Your task to perform on an android device: Open Android settings Image 0: 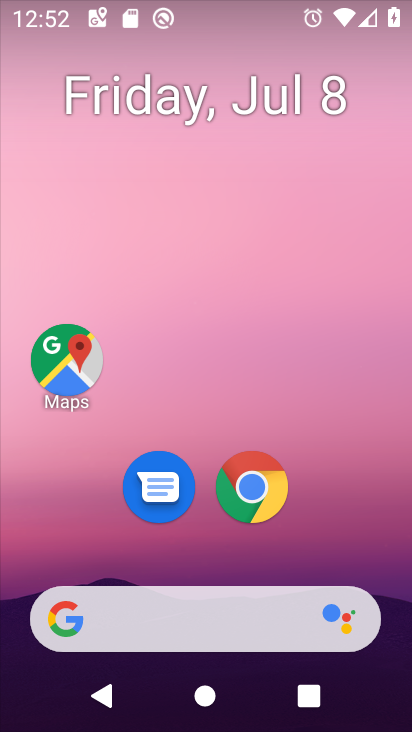
Step 0: click (372, 51)
Your task to perform on an android device: Open Android settings Image 1: 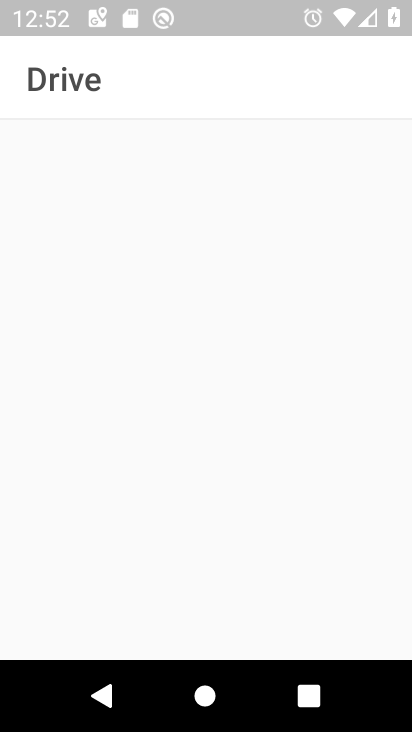
Step 1: press home button
Your task to perform on an android device: Open Android settings Image 2: 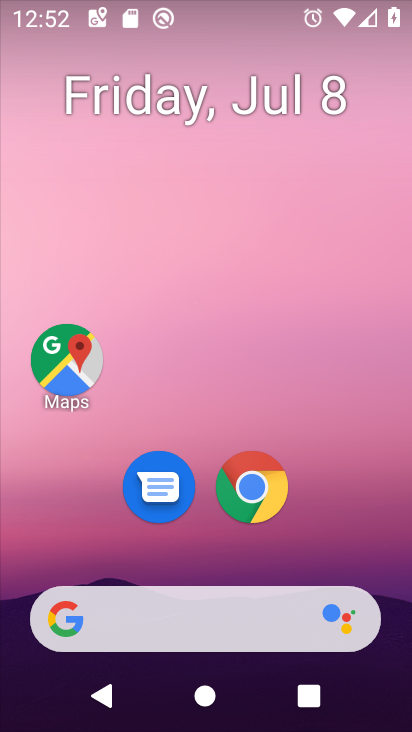
Step 2: drag from (363, 558) to (381, 106)
Your task to perform on an android device: Open Android settings Image 3: 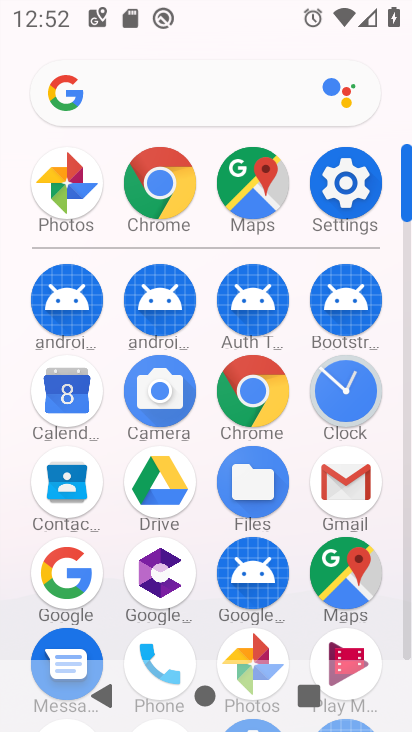
Step 3: click (345, 189)
Your task to perform on an android device: Open Android settings Image 4: 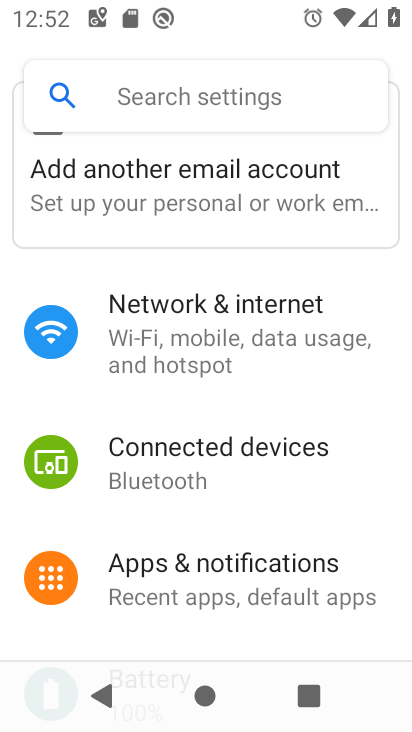
Step 4: drag from (377, 429) to (377, 361)
Your task to perform on an android device: Open Android settings Image 5: 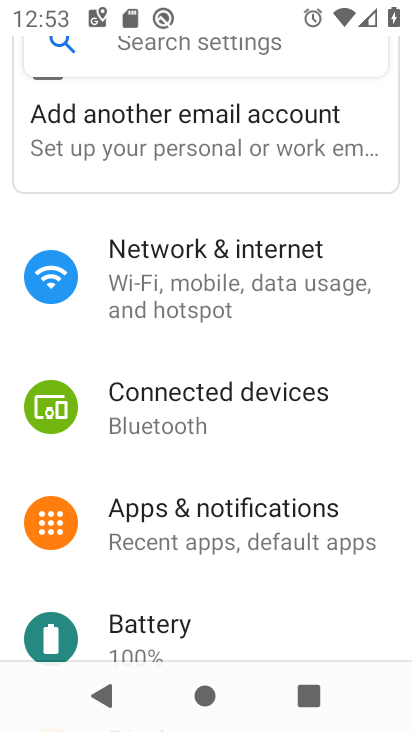
Step 5: drag from (369, 476) to (375, 389)
Your task to perform on an android device: Open Android settings Image 6: 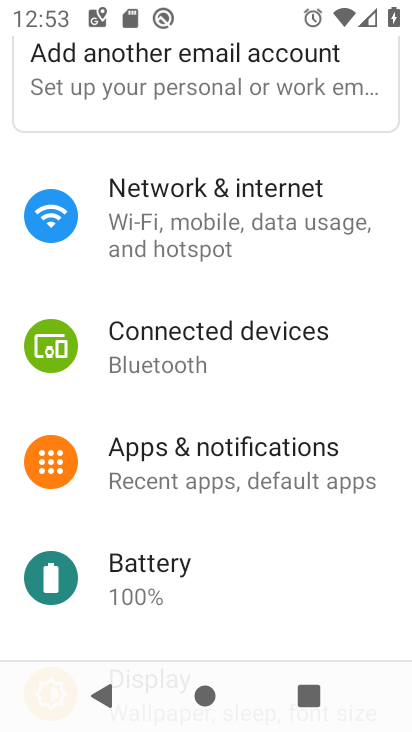
Step 6: drag from (375, 560) to (379, 470)
Your task to perform on an android device: Open Android settings Image 7: 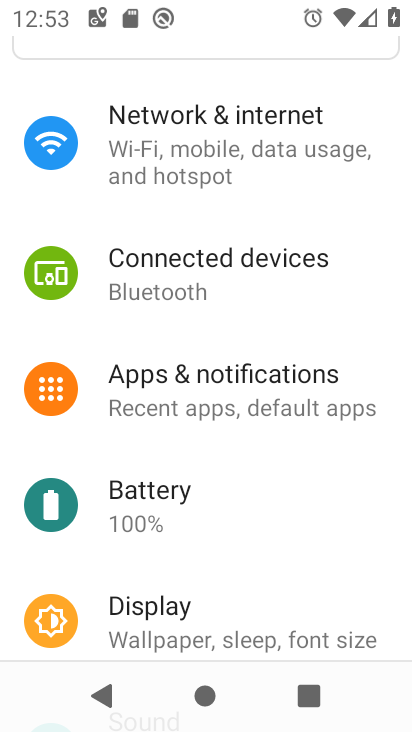
Step 7: drag from (371, 572) to (369, 472)
Your task to perform on an android device: Open Android settings Image 8: 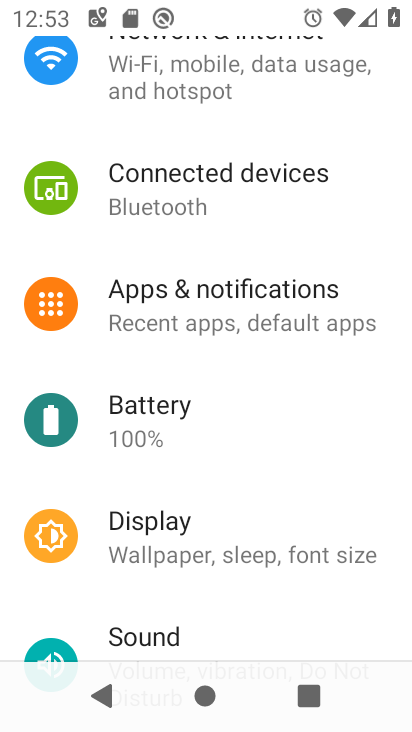
Step 8: drag from (373, 595) to (379, 501)
Your task to perform on an android device: Open Android settings Image 9: 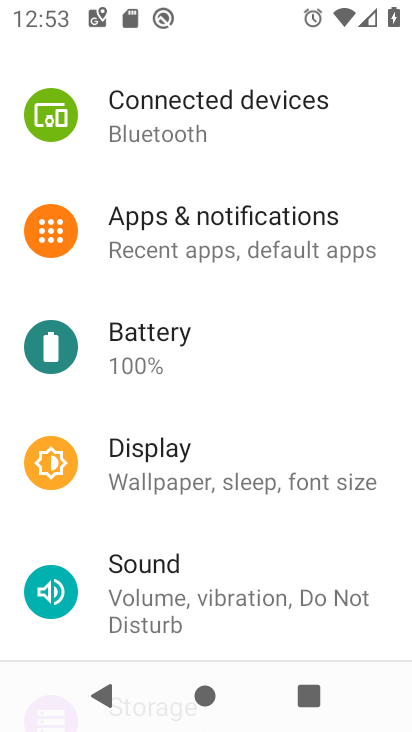
Step 9: drag from (358, 613) to (356, 530)
Your task to perform on an android device: Open Android settings Image 10: 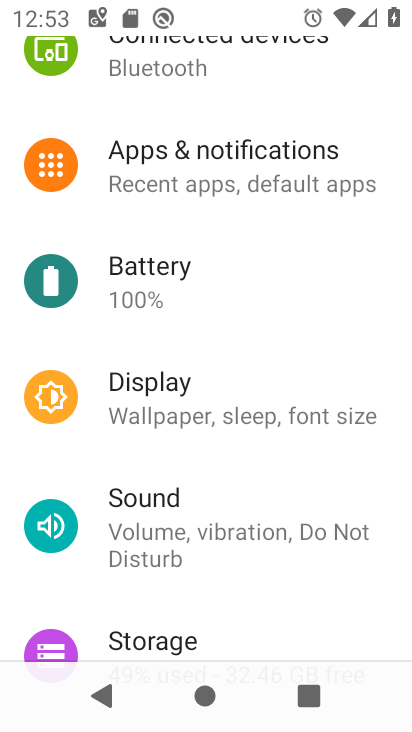
Step 10: drag from (357, 598) to (360, 491)
Your task to perform on an android device: Open Android settings Image 11: 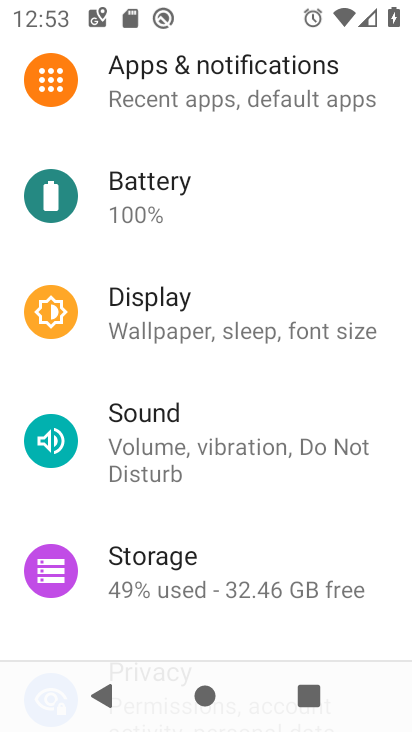
Step 11: drag from (358, 557) to (368, 444)
Your task to perform on an android device: Open Android settings Image 12: 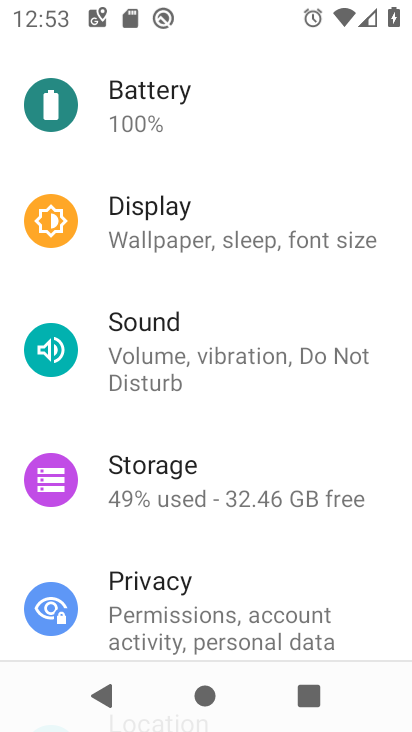
Step 12: drag from (351, 584) to (354, 487)
Your task to perform on an android device: Open Android settings Image 13: 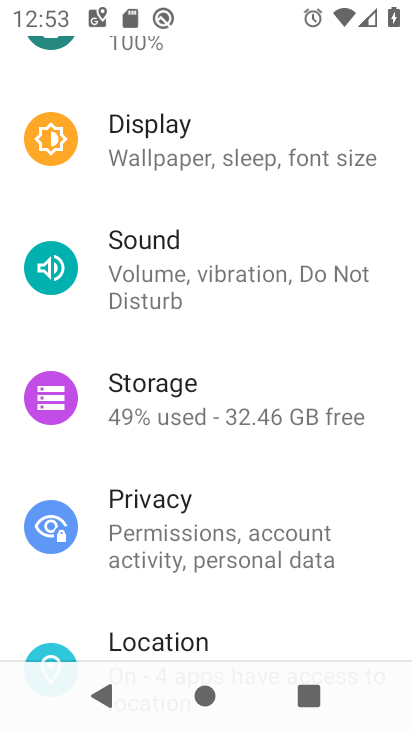
Step 13: drag from (350, 595) to (360, 416)
Your task to perform on an android device: Open Android settings Image 14: 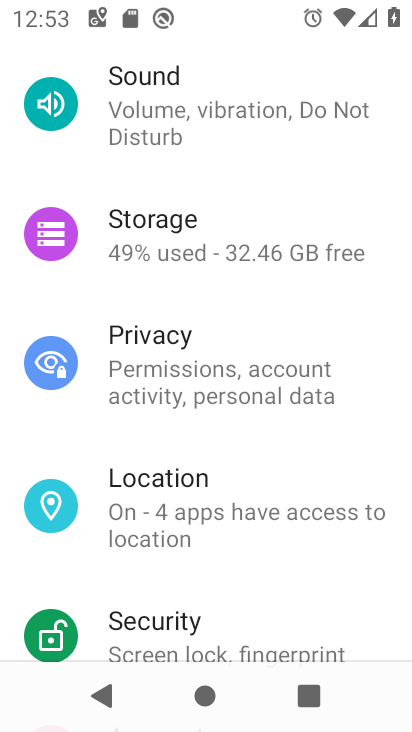
Step 14: drag from (338, 575) to (341, 453)
Your task to perform on an android device: Open Android settings Image 15: 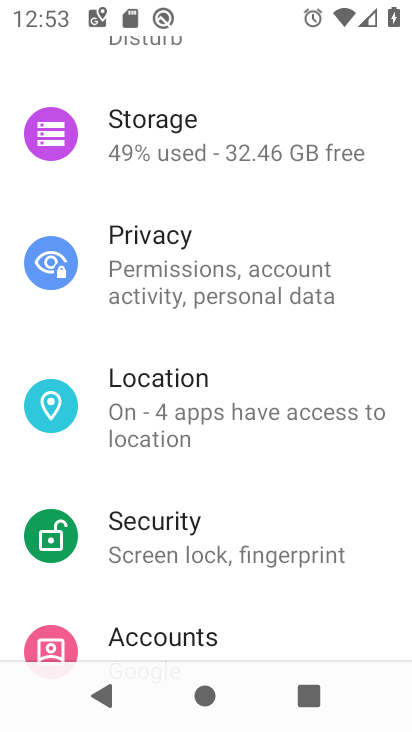
Step 15: drag from (370, 614) to (366, 485)
Your task to perform on an android device: Open Android settings Image 16: 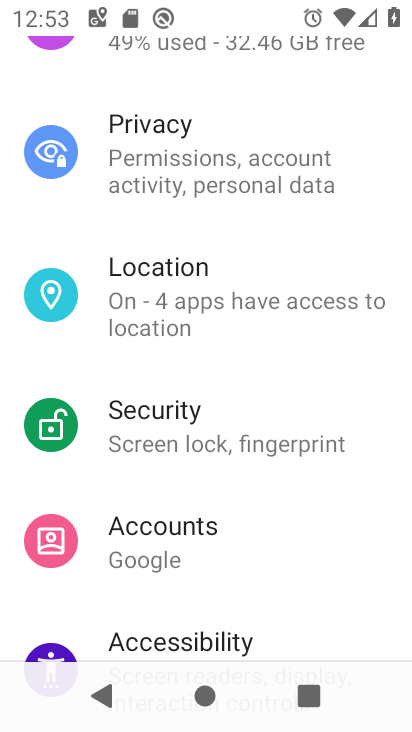
Step 16: drag from (350, 595) to (353, 497)
Your task to perform on an android device: Open Android settings Image 17: 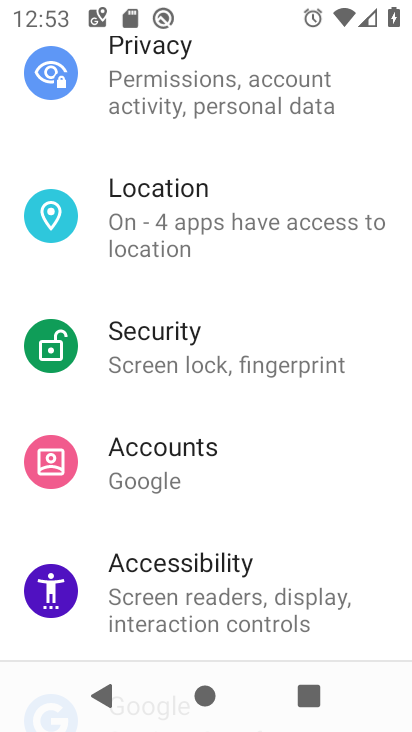
Step 17: drag from (352, 625) to (362, 469)
Your task to perform on an android device: Open Android settings Image 18: 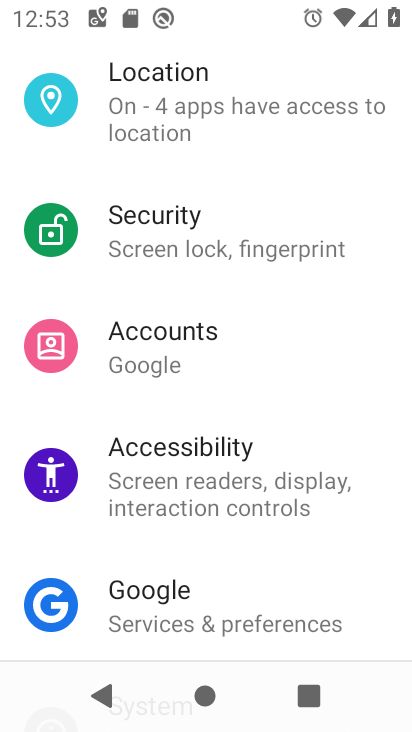
Step 18: drag from (381, 574) to (382, 470)
Your task to perform on an android device: Open Android settings Image 19: 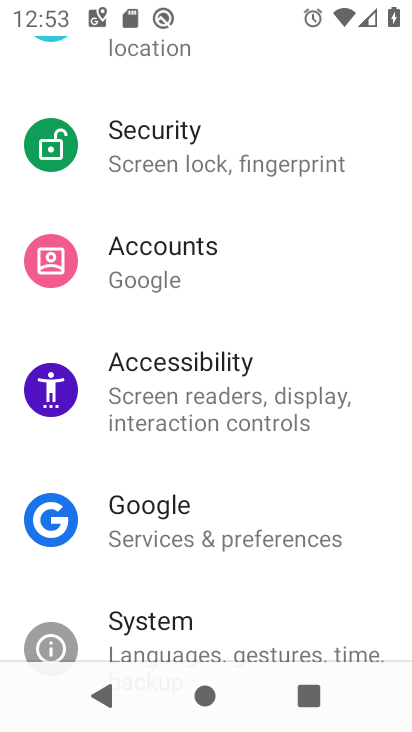
Step 19: drag from (350, 601) to (355, 475)
Your task to perform on an android device: Open Android settings Image 20: 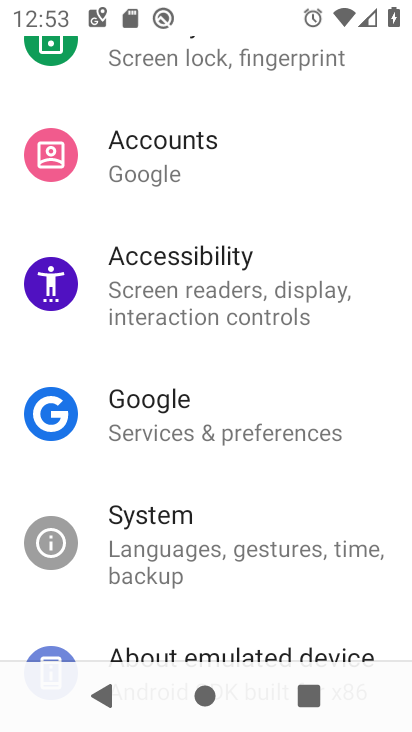
Step 20: click (344, 546)
Your task to perform on an android device: Open Android settings Image 21: 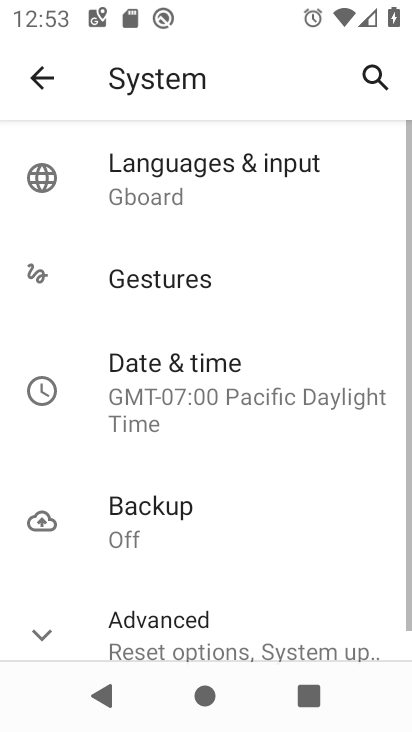
Step 21: drag from (344, 545) to (354, 442)
Your task to perform on an android device: Open Android settings Image 22: 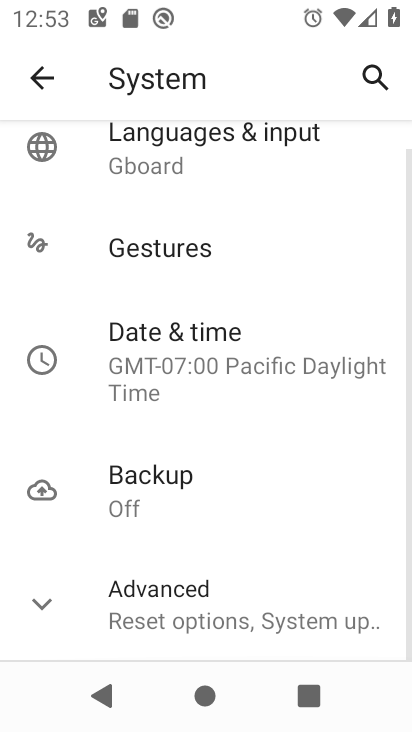
Step 22: click (328, 606)
Your task to perform on an android device: Open Android settings Image 23: 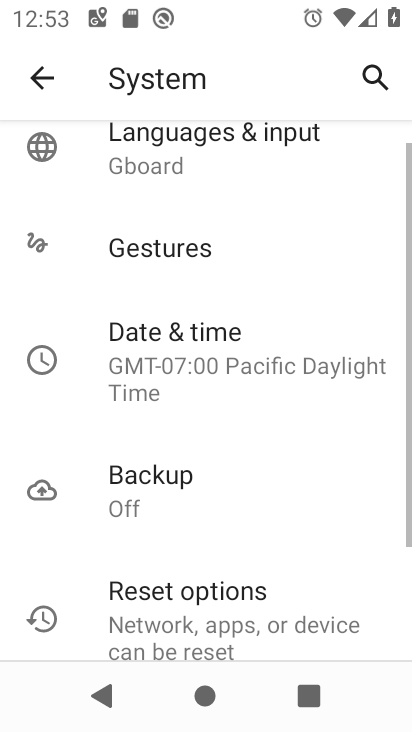
Step 23: task complete